Your task to perform on an android device: Set the phone to "Do not disturb". Image 0: 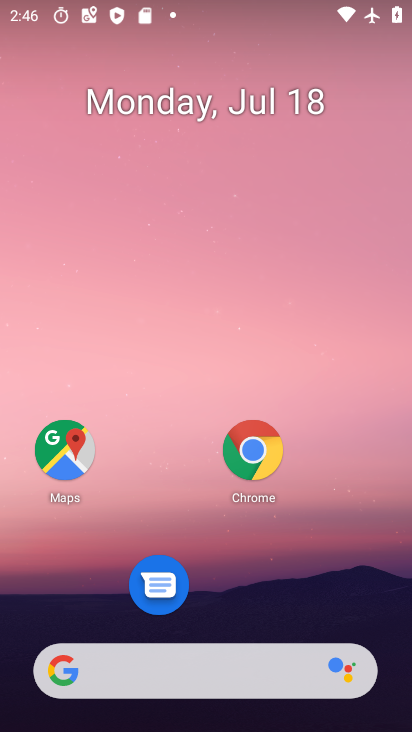
Step 0: drag from (154, 624) to (240, 55)
Your task to perform on an android device: Set the phone to "Do not disturb". Image 1: 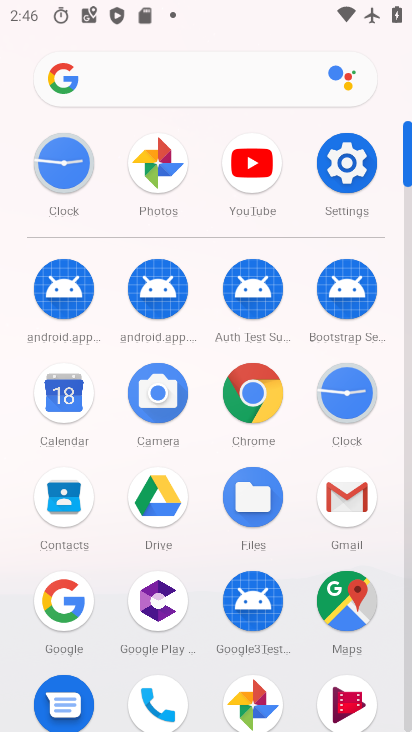
Step 1: click (349, 160)
Your task to perform on an android device: Set the phone to "Do not disturb". Image 2: 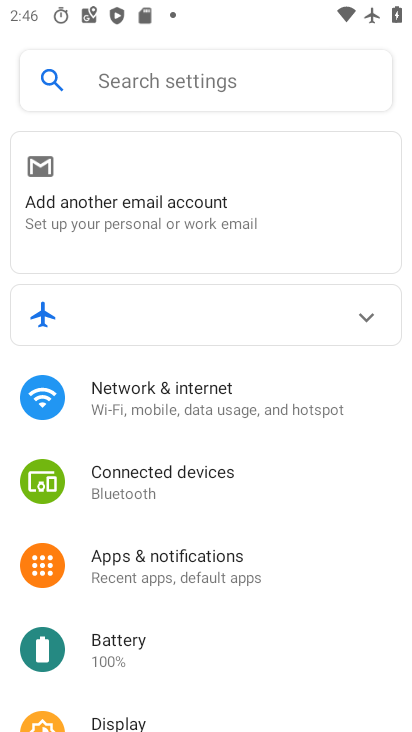
Step 2: drag from (189, 665) to (286, 222)
Your task to perform on an android device: Set the phone to "Do not disturb". Image 3: 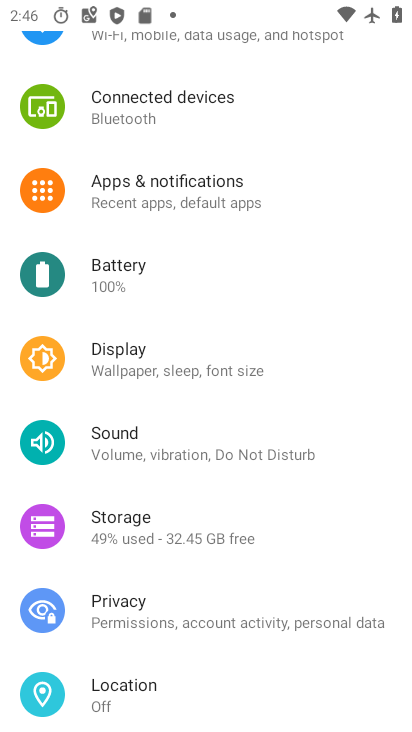
Step 3: click (144, 442)
Your task to perform on an android device: Set the phone to "Do not disturb". Image 4: 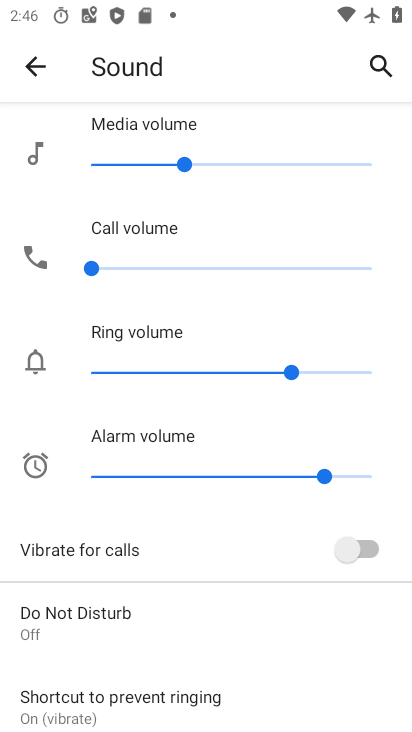
Step 4: click (70, 608)
Your task to perform on an android device: Set the phone to "Do not disturb". Image 5: 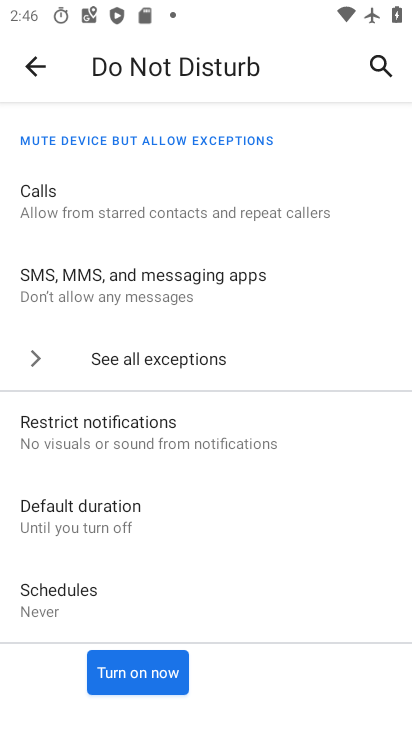
Step 5: click (139, 676)
Your task to perform on an android device: Set the phone to "Do not disturb". Image 6: 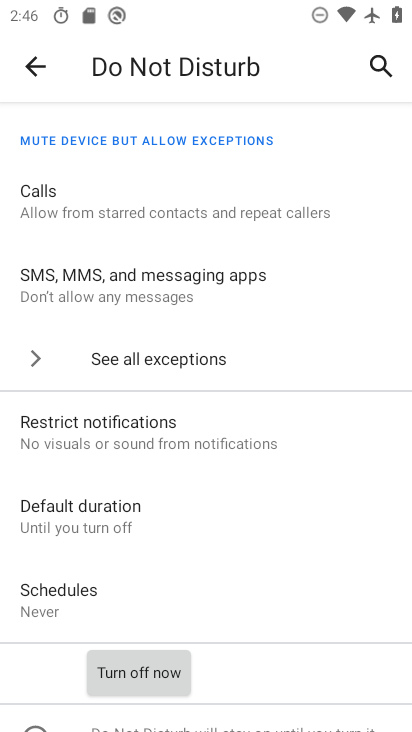
Step 6: task complete